Your task to perform on an android device: turn off location Image 0: 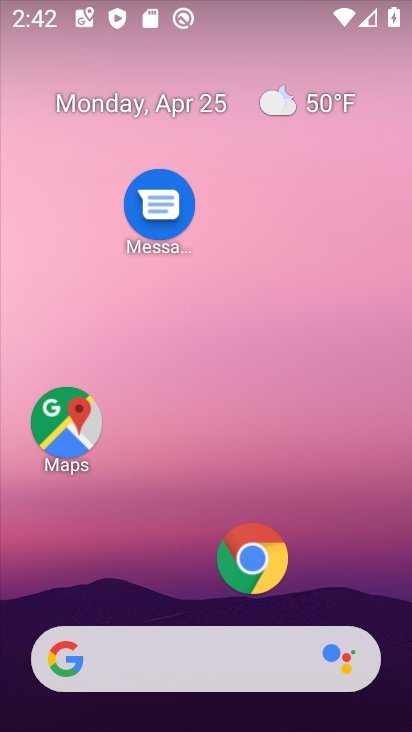
Step 0: drag from (168, 529) to (237, 3)
Your task to perform on an android device: turn off location Image 1: 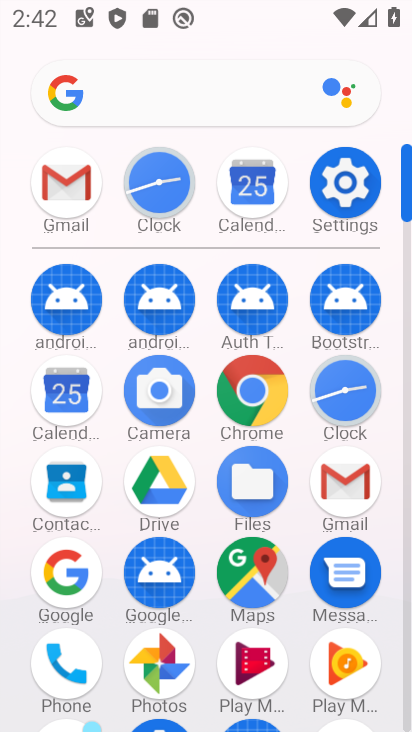
Step 1: click (351, 199)
Your task to perform on an android device: turn off location Image 2: 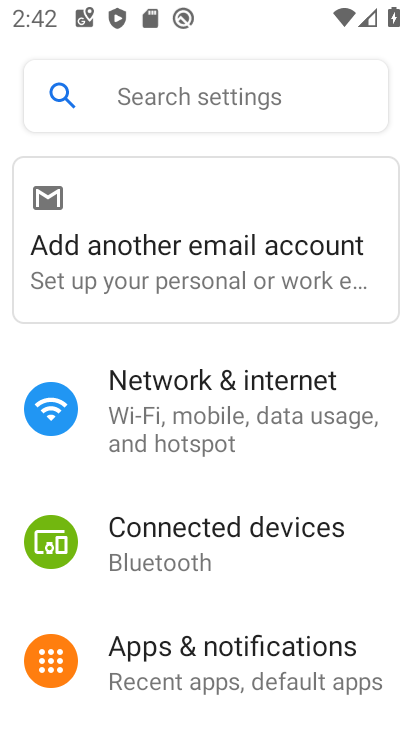
Step 2: drag from (224, 585) to (345, 14)
Your task to perform on an android device: turn off location Image 3: 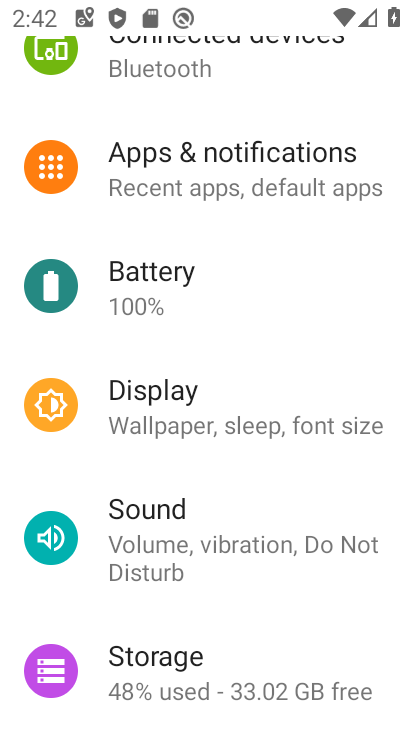
Step 3: drag from (231, 477) to (323, 80)
Your task to perform on an android device: turn off location Image 4: 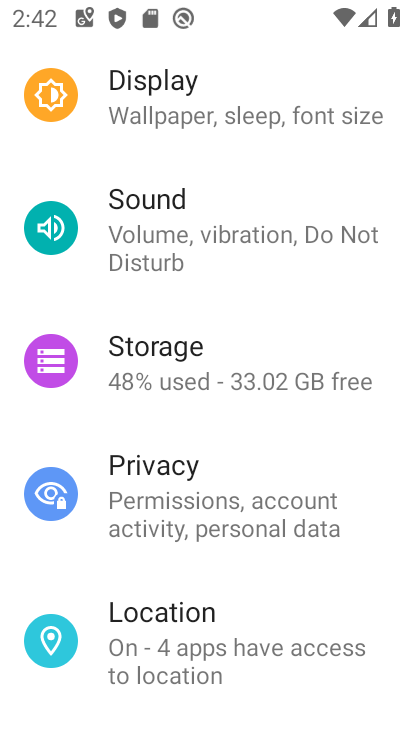
Step 4: click (185, 642)
Your task to perform on an android device: turn off location Image 5: 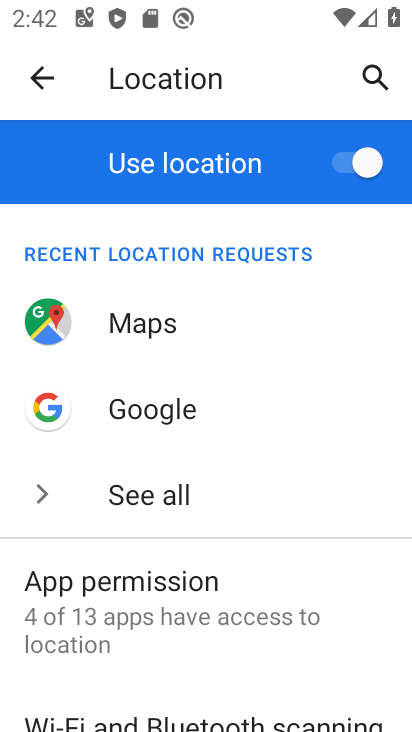
Step 5: drag from (204, 556) to (257, 256)
Your task to perform on an android device: turn off location Image 6: 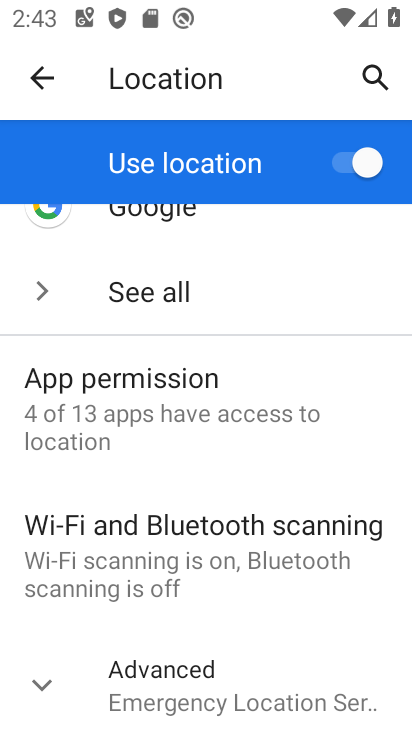
Step 6: click (324, 158)
Your task to perform on an android device: turn off location Image 7: 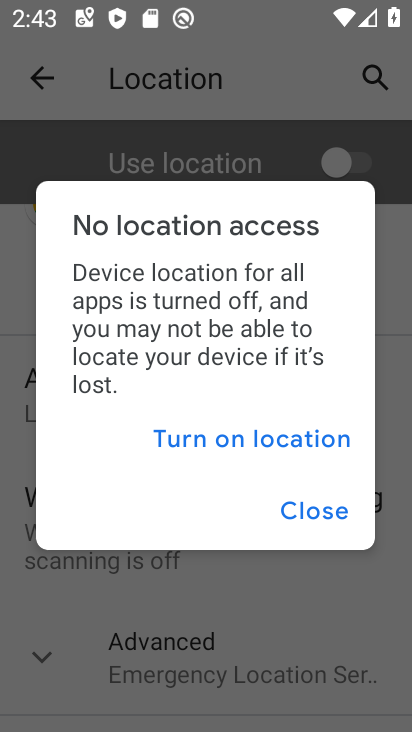
Step 7: click (299, 501)
Your task to perform on an android device: turn off location Image 8: 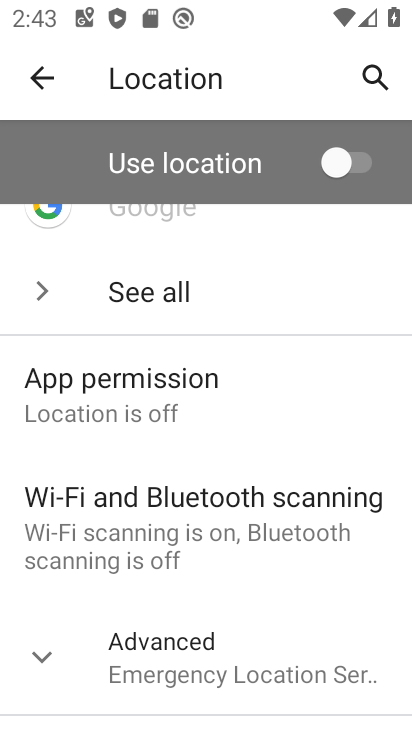
Step 8: task complete